Your task to perform on an android device: Open calendar and show me the fourth week of next month Image 0: 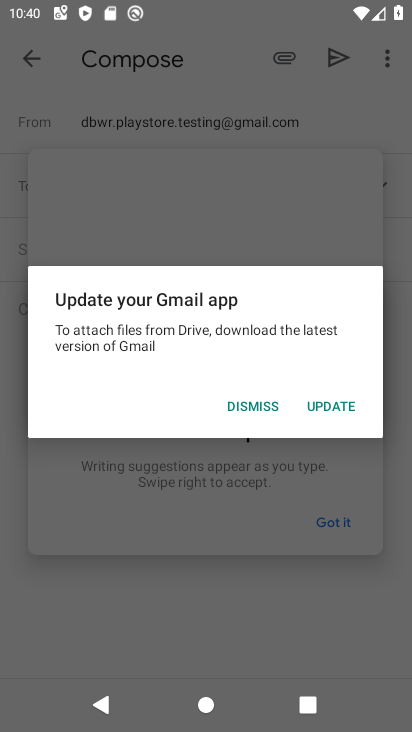
Step 0: press home button
Your task to perform on an android device: Open calendar and show me the fourth week of next month Image 1: 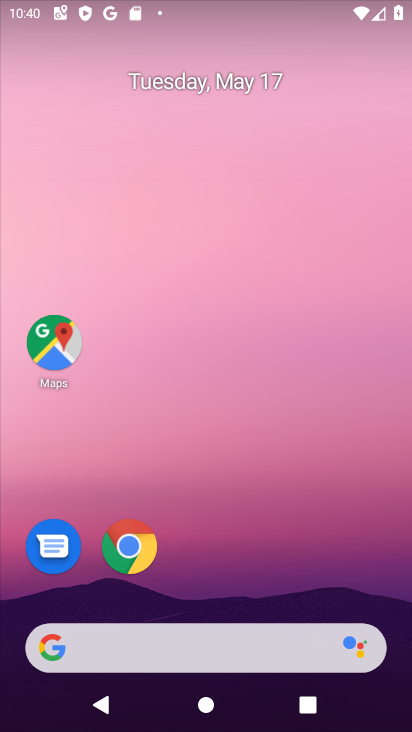
Step 1: drag from (182, 615) to (245, 230)
Your task to perform on an android device: Open calendar and show me the fourth week of next month Image 2: 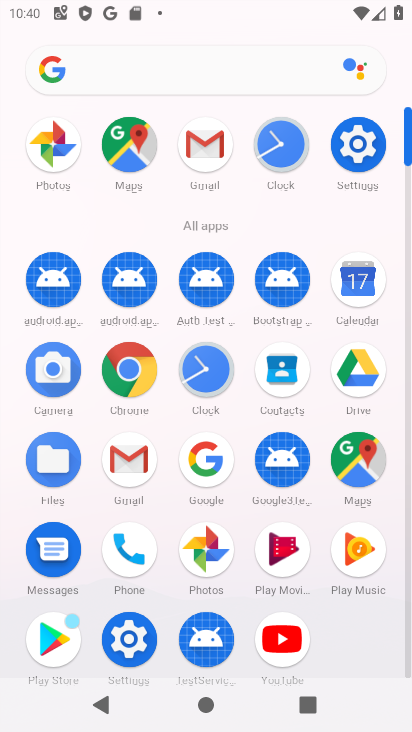
Step 2: click (362, 284)
Your task to perform on an android device: Open calendar and show me the fourth week of next month Image 3: 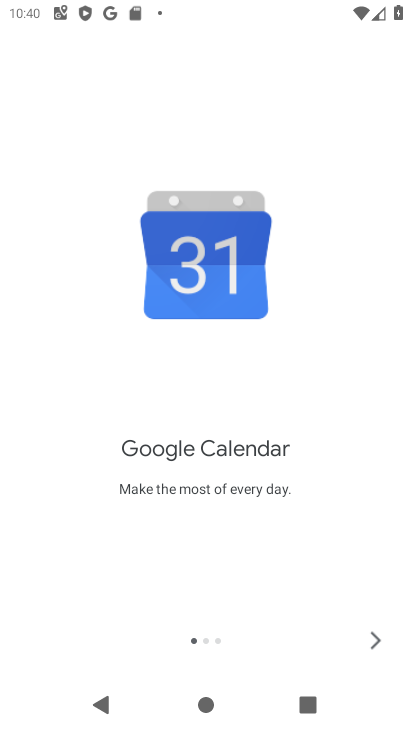
Step 3: click (375, 653)
Your task to perform on an android device: Open calendar and show me the fourth week of next month Image 4: 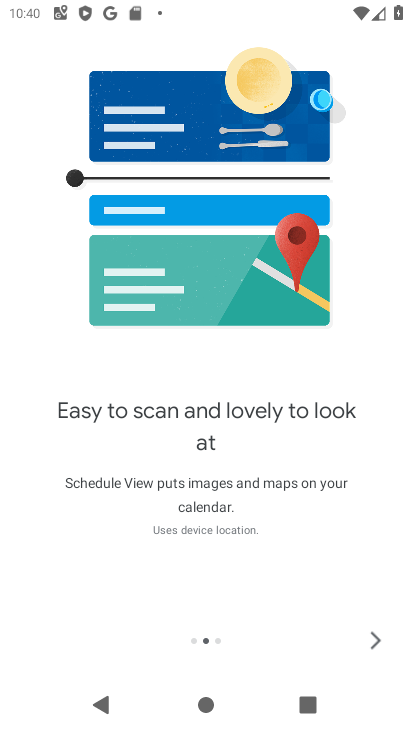
Step 4: click (378, 643)
Your task to perform on an android device: Open calendar and show me the fourth week of next month Image 5: 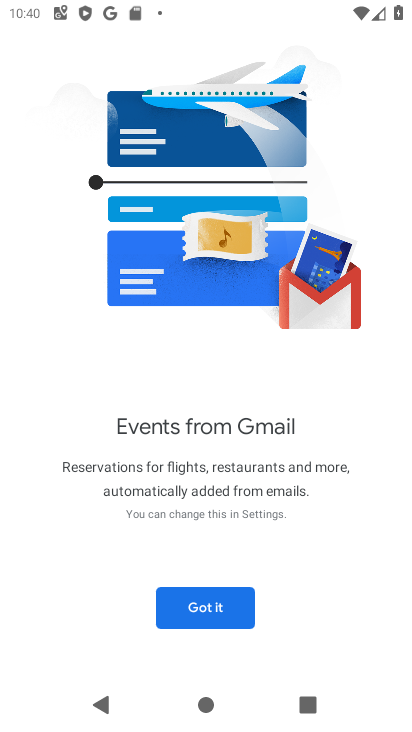
Step 5: click (228, 610)
Your task to perform on an android device: Open calendar and show me the fourth week of next month Image 6: 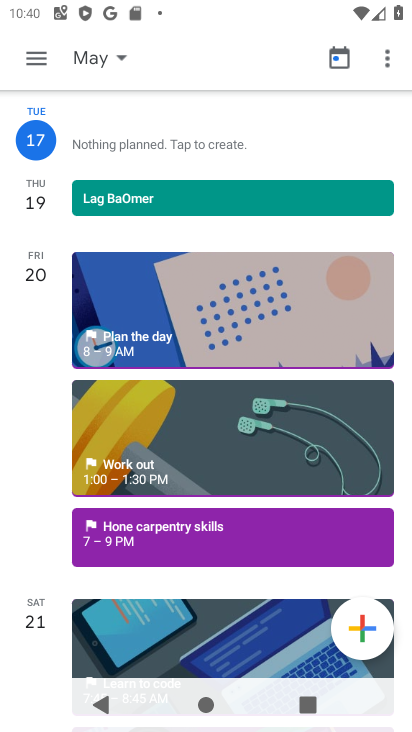
Step 6: click (108, 55)
Your task to perform on an android device: Open calendar and show me the fourth week of next month Image 7: 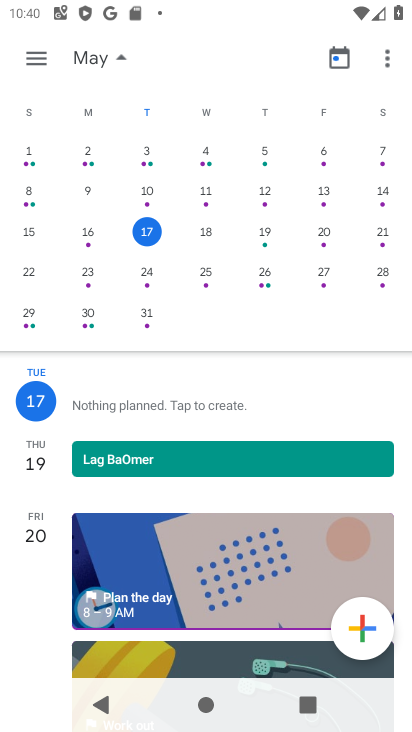
Step 7: drag from (354, 300) to (1, 286)
Your task to perform on an android device: Open calendar and show me the fourth week of next month Image 8: 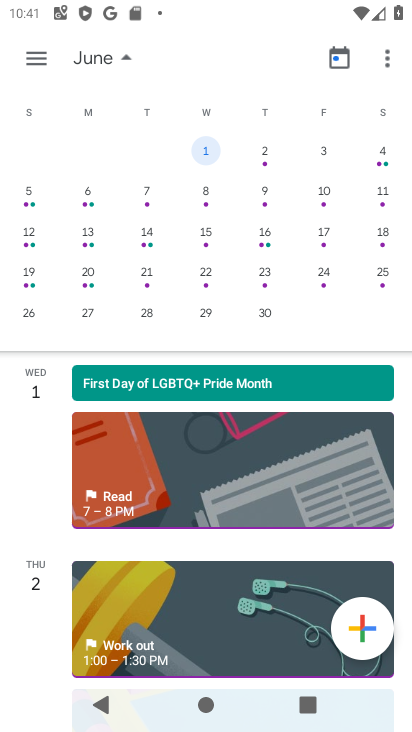
Step 8: click (26, 309)
Your task to perform on an android device: Open calendar and show me the fourth week of next month Image 9: 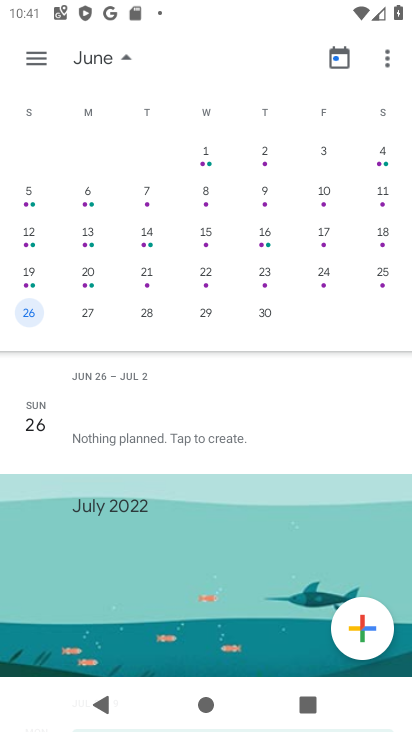
Step 9: click (43, 52)
Your task to perform on an android device: Open calendar and show me the fourth week of next month Image 10: 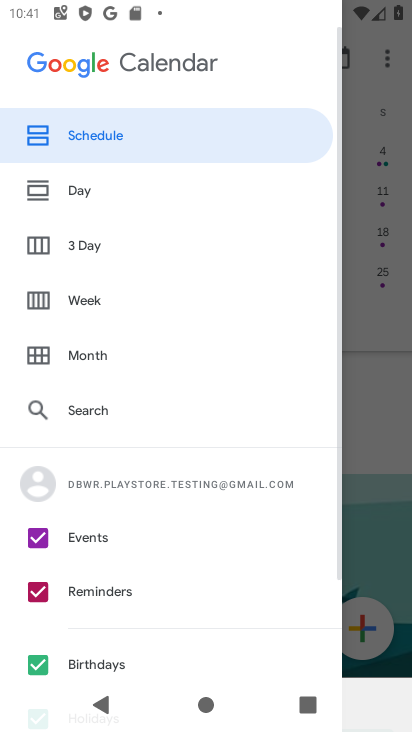
Step 10: click (121, 306)
Your task to perform on an android device: Open calendar and show me the fourth week of next month Image 11: 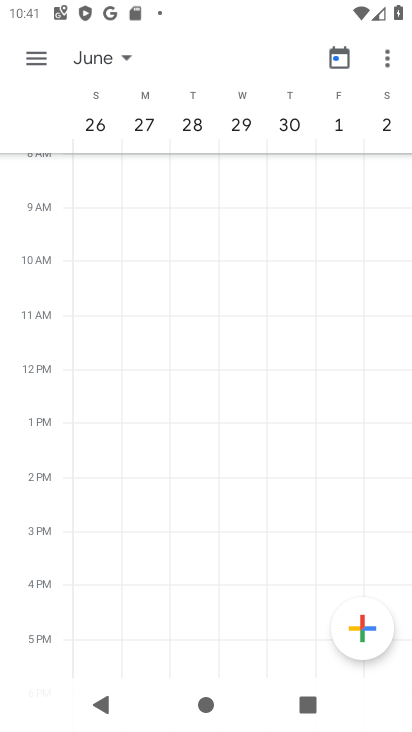
Step 11: task complete